Your task to perform on an android device: Open ESPN.com Image 0: 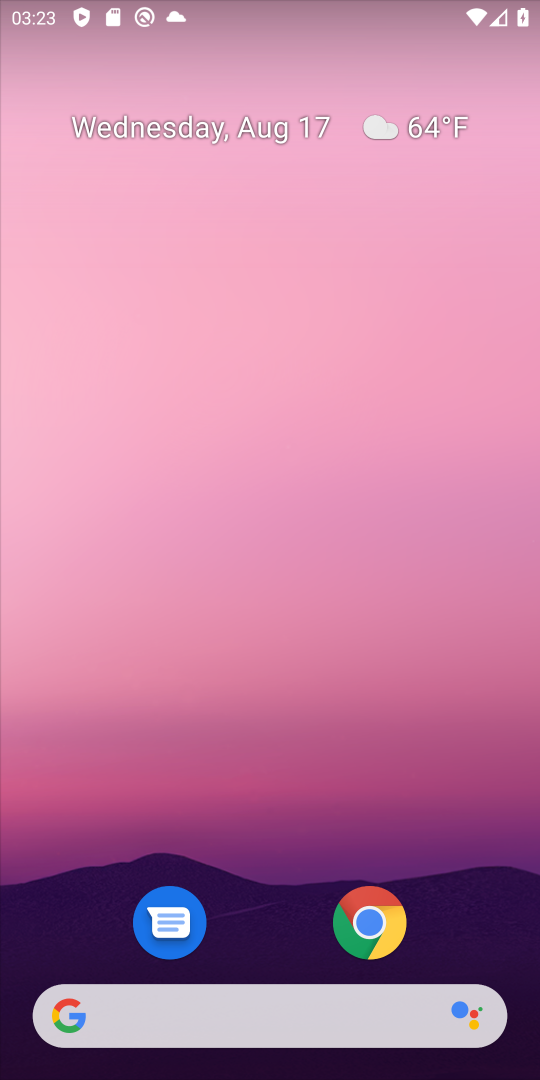
Step 0: press home button
Your task to perform on an android device: Open ESPN.com Image 1: 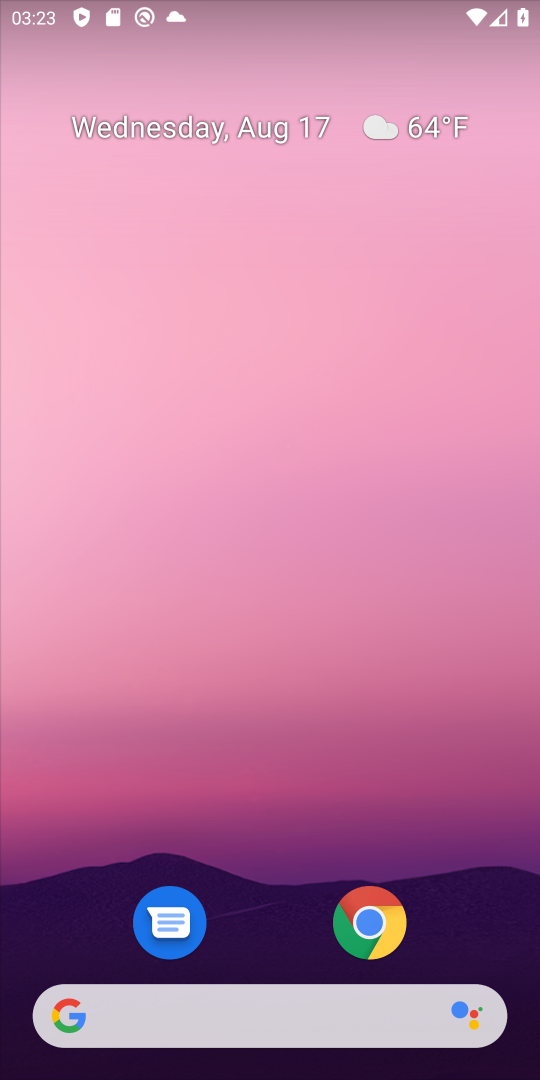
Step 1: click (372, 928)
Your task to perform on an android device: Open ESPN.com Image 2: 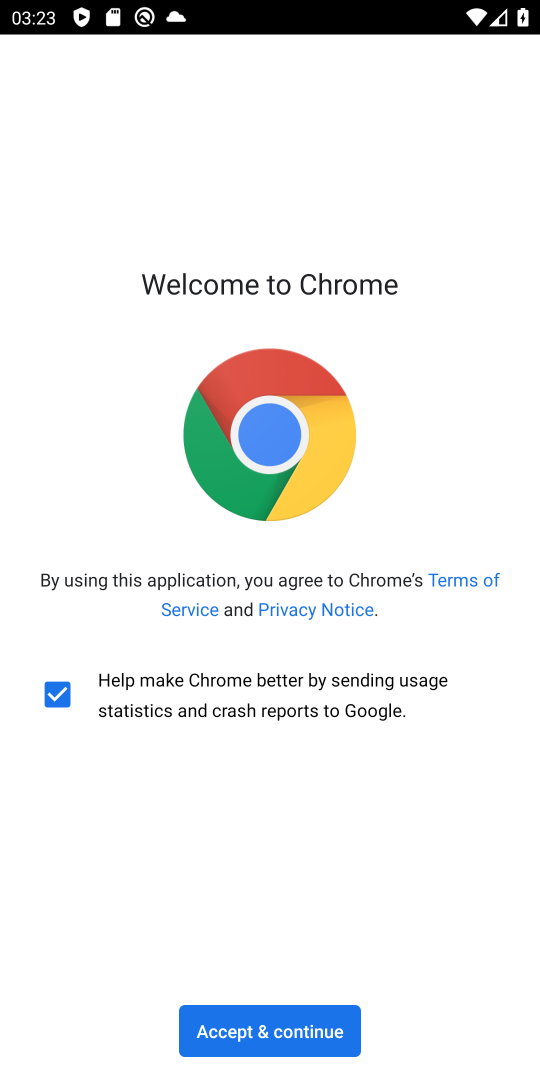
Step 2: click (264, 1055)
Your task to perform on an android device: Open ESPN.com Image 3: 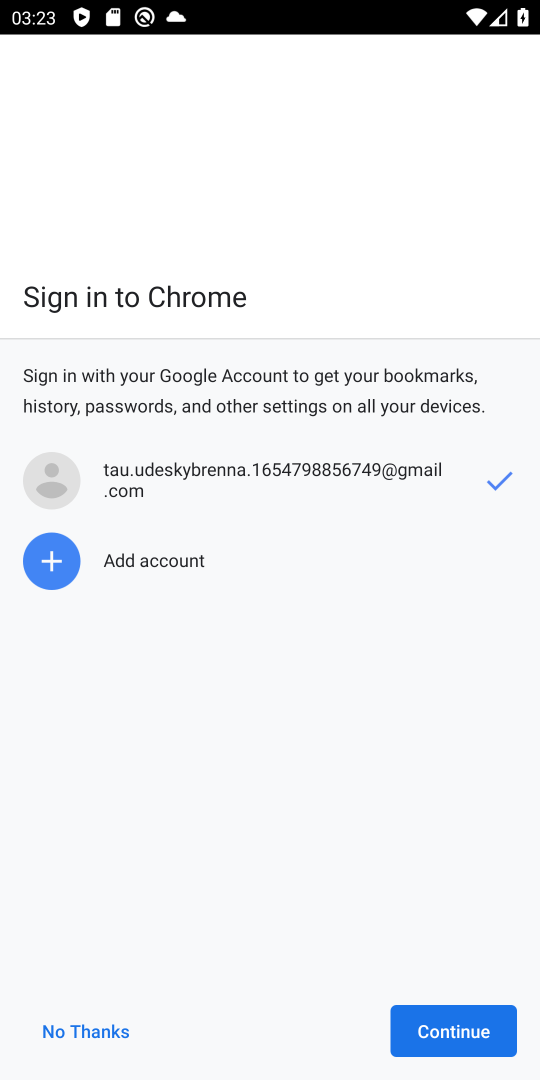
Step 3: click (90, 1015)
Your task to perform on an android device: Open ESPN.com Image 4: 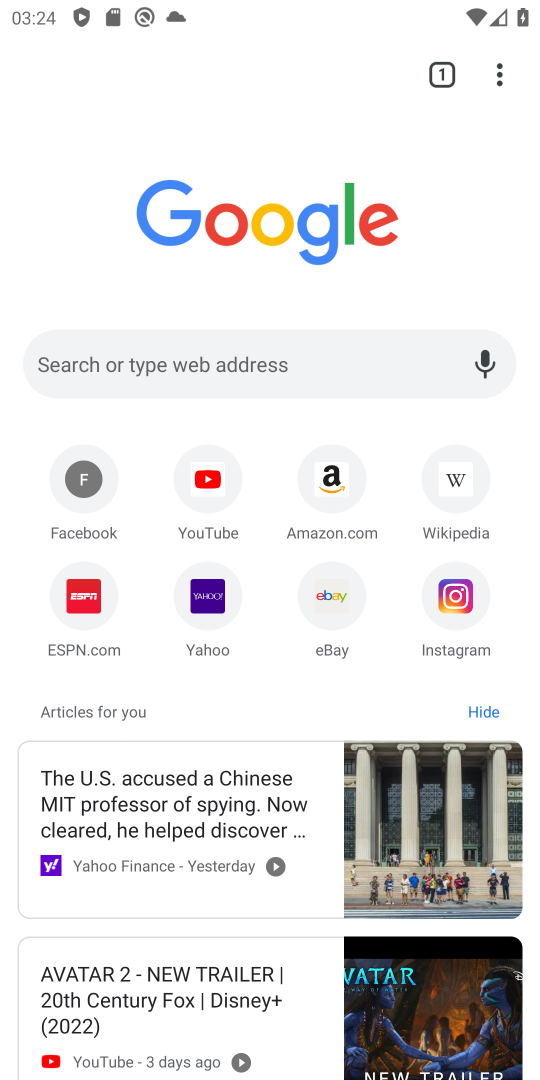
Step 4: click (78, 596)
Your task to perform on an android device: Open ESPN.com Image 5: 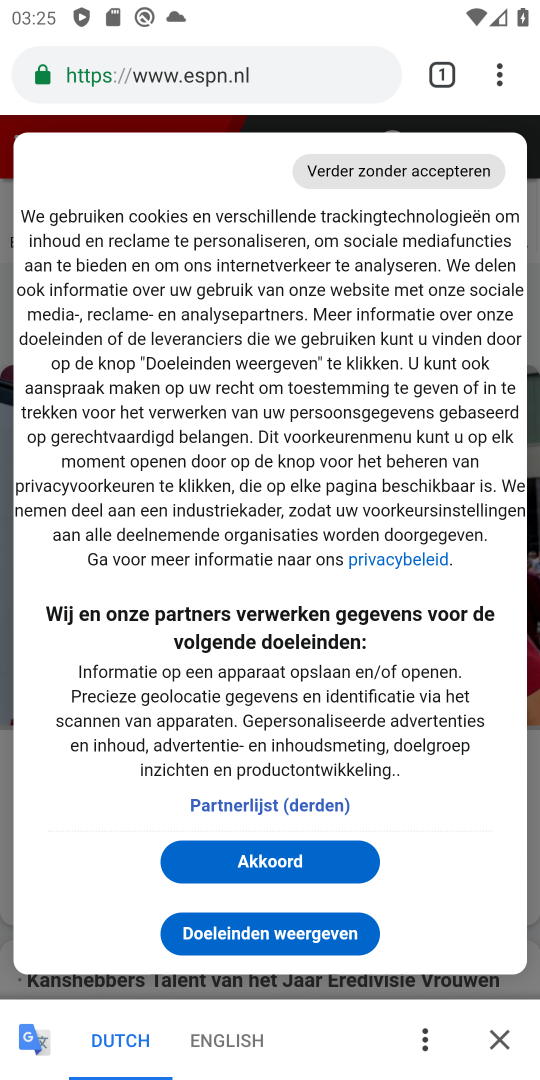
Step 5: task complete